Your task to perform on an android device: check the backup settings in the google photos Image 0: 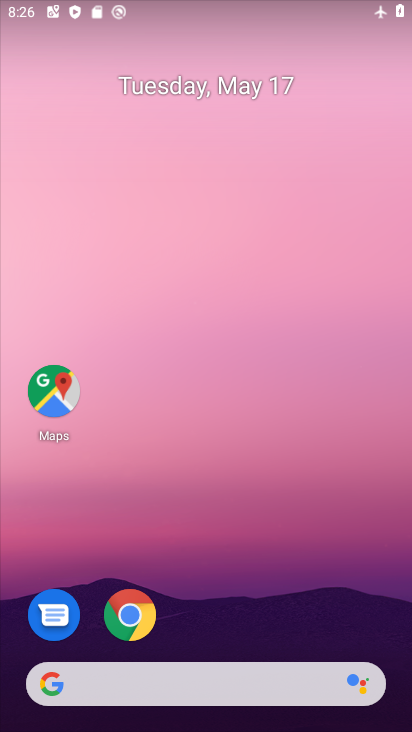
Step 0: drag from (259, 612) to (336, 189)
Your task to perform on an android device: check the backup settings in the google photos Image 1: 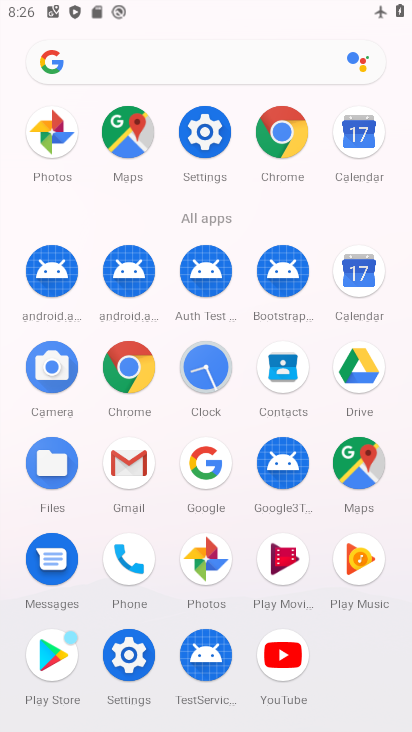
Step 1: click (197, 555)
Your task to perform on an android device: check the backup settings in the google photos Image 2: 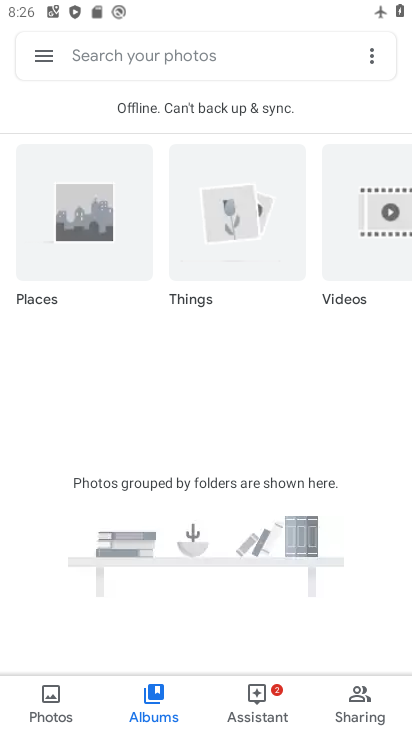
Step 2: click (49, 44)
Your task to perform on an android device: check the backup settings in the google photos Image 3: 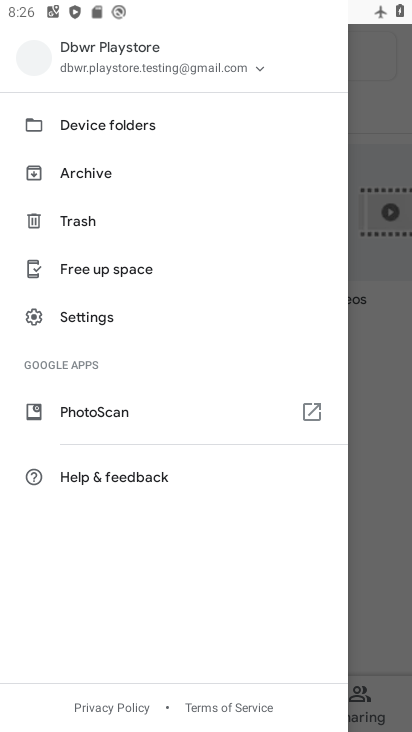
Step 3: click (100, 321)
Your task to perform on an android device: check the backup settings in the google photos Image 4: 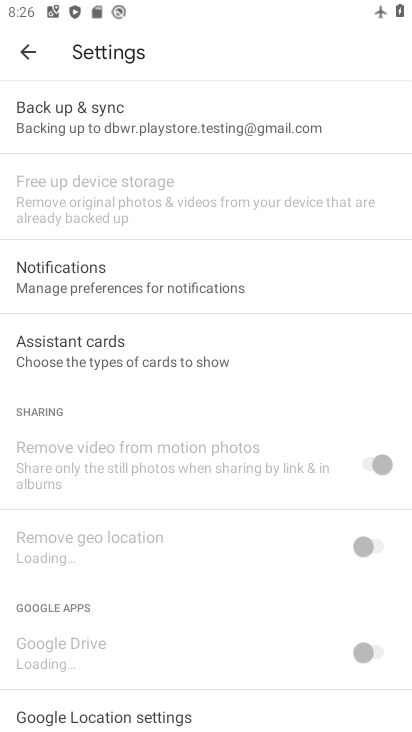
Step 4: click (86, 117)
Your task to perform on an android device: check the backup settings in the google photos Image 5: 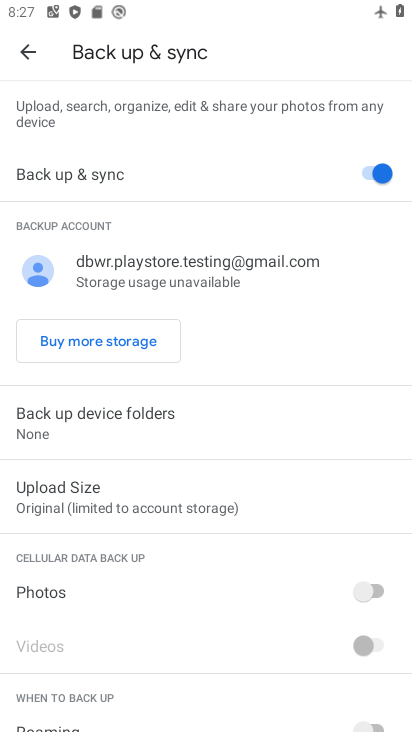
Step 5: task complete